Your task to perform on an android device: snooze an email in the gmail app Image 0: 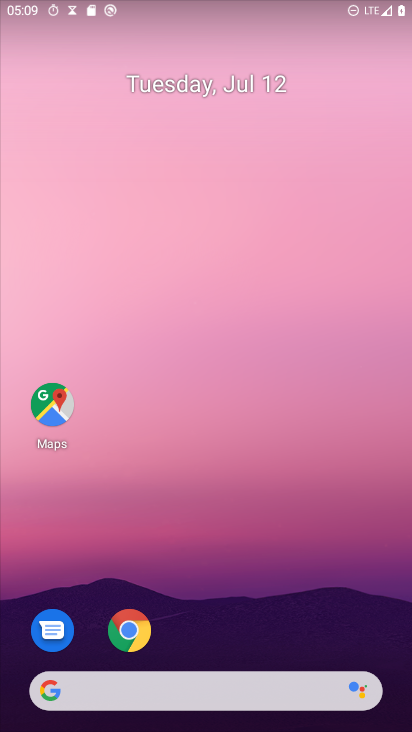
Step 0: drag from (229, 696) to (312, 76)
Your task to perform on an android device: snooze an email in the gmail app Image 1: 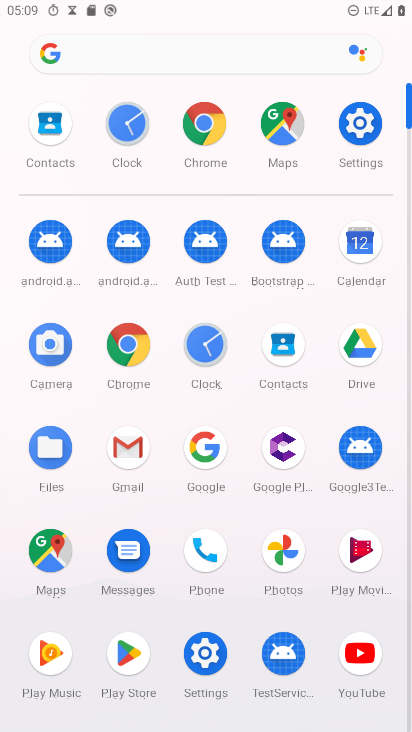
Step 1: click (129, 452)
Your task to perform on an android device: snooze an email in the gmail app Image 2: 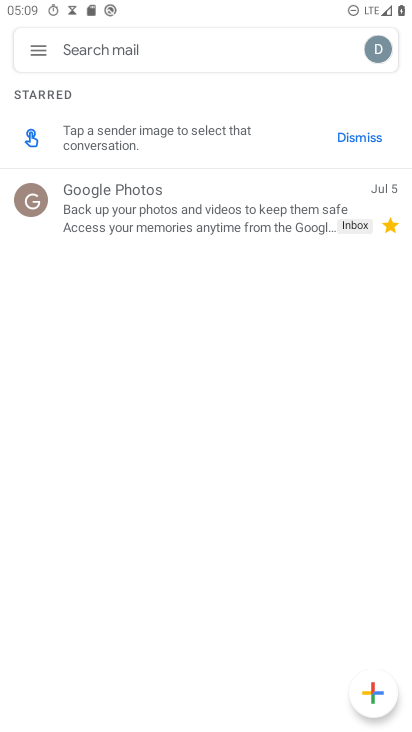
Step 2: click (29, 45)
Your task to perform on an android device: snooze an email in the gmail app Image 3: 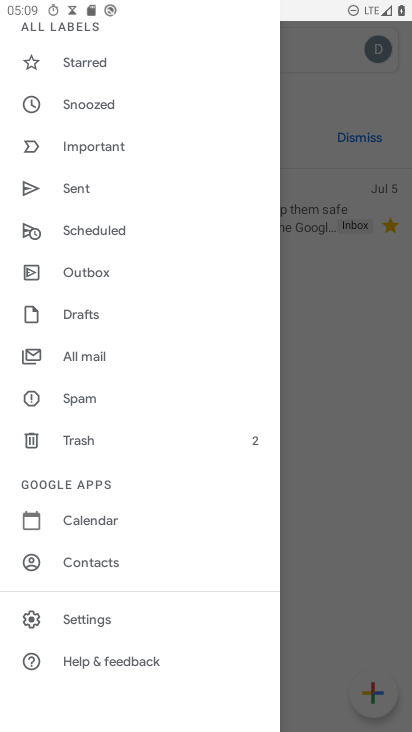
Step 3: click (102, 108)
Your task to perform on an android device: snooze an email in the gmail app Image 4: 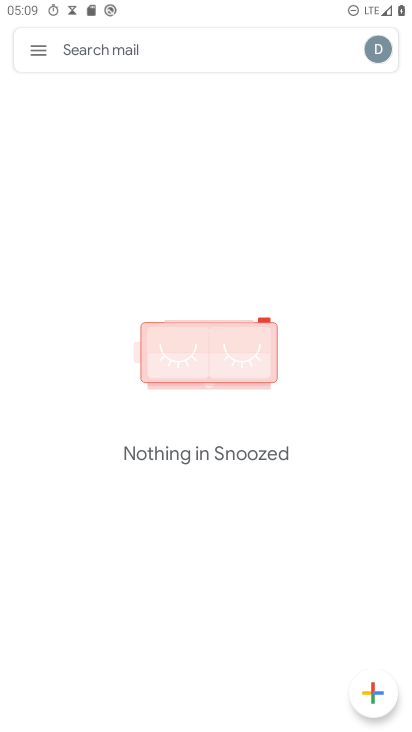
Step 4: task complete